Your task to perform on an android device: Is it going to rain today? Image 0: 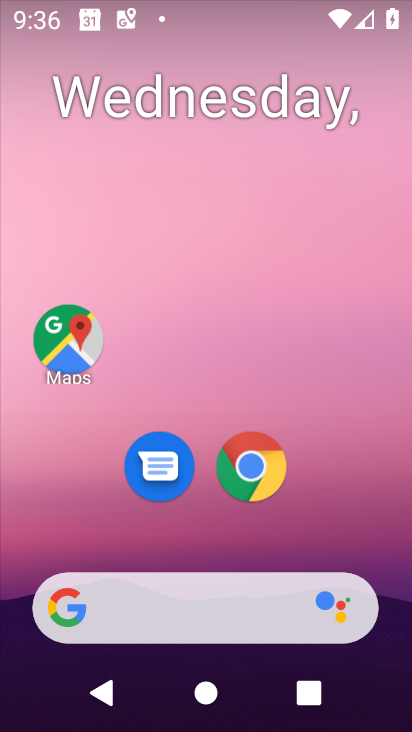
Step 0: drag from (341, 484) to (342, 223)
Your task to perform on an android device: Is it going to rain today? Image 1: 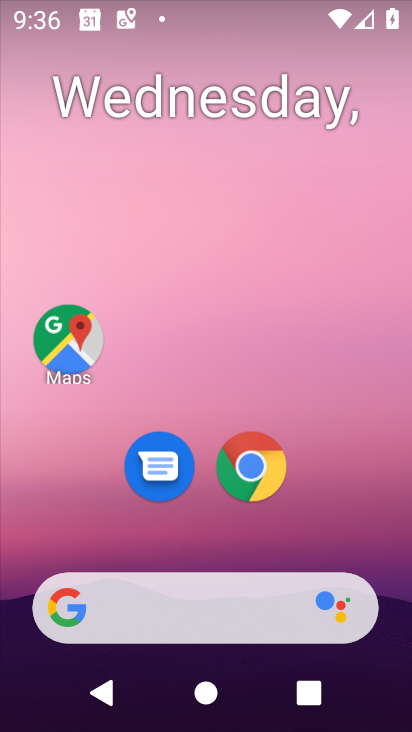
Step 1: drag from (290, 540) to (301, 249)
Your task to perform on an android device: Is it going to rain today? Image 2: 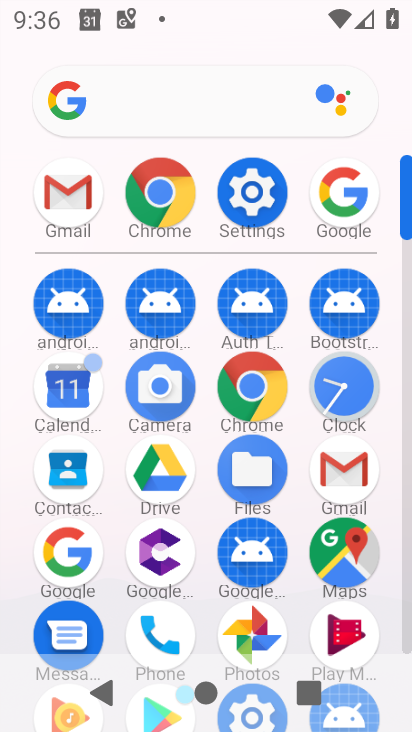
Step 2: click (142, 188)
Your task to perform on an android device: Is it going to rain today? Image 3: 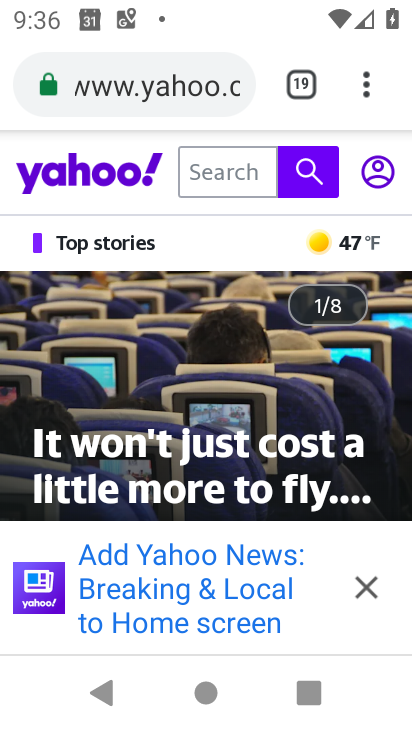
Step 3: click (337, 79)
Your task to perform on an android device: Is it going to rain today? Image 4: 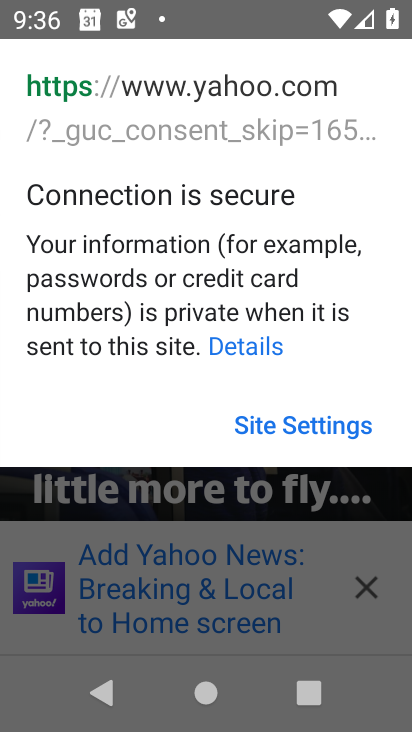
Step 4: press back button
Your task to perform on an android device: Is it going to rain today? Image 5: 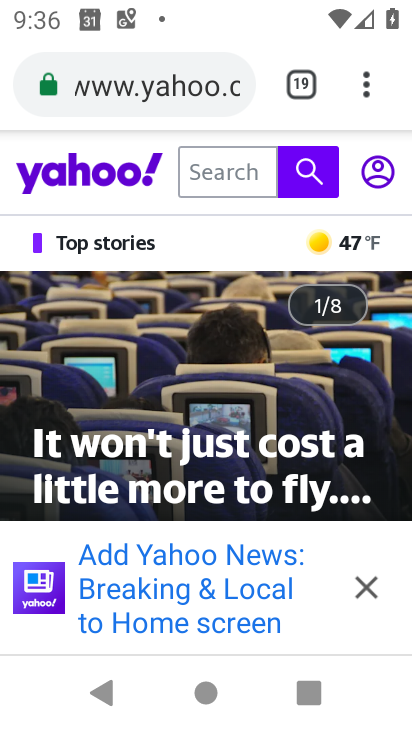
Step 5: click (354, 82)
Your task to perform on an android device: Is it going to rain today? Image 6: 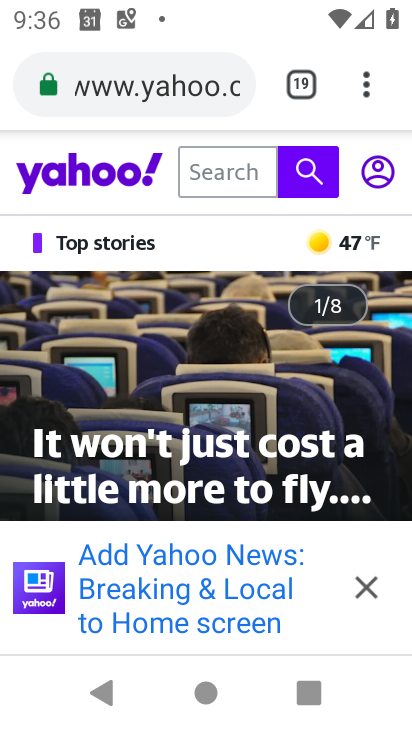
Step 6: click (386, 74)
Your task to perform on an android device: Is it going to rain today? Image 7: 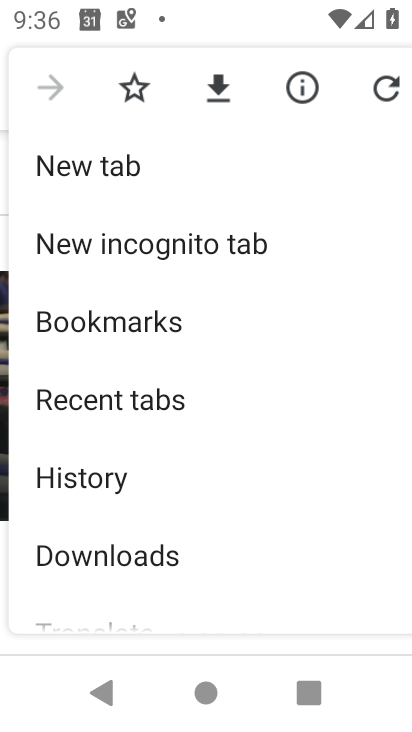
Step 7: click (88, 162)
Your task to perform on an android device: Is it going to rain today? Image 8: 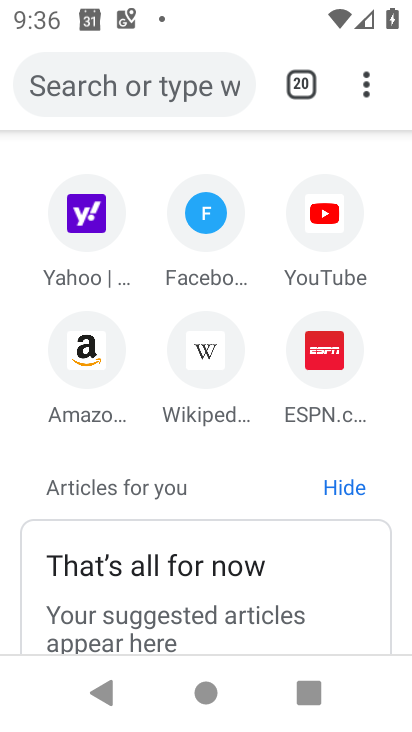
Step 8: click (386, 718)
Your task to perform on an android device: Is it going to rain today? Image 9: 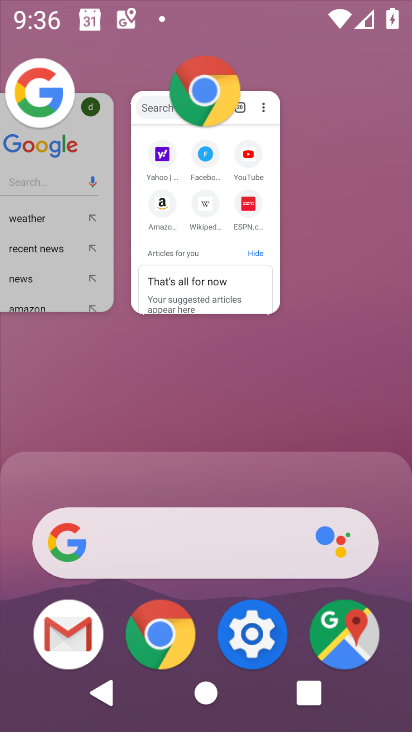
Step 9: click (154, 209)
Your task to perform on an android device: Is it going to rain today? Image 10: 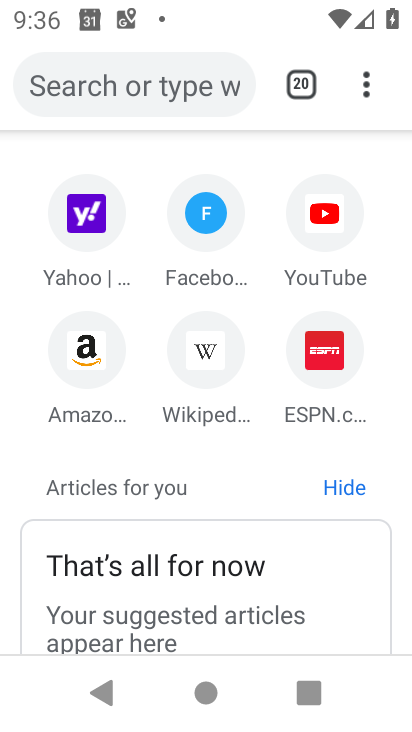
Step 10: click (169, 81)
Your task to perform on an android device: Is it going to rain today? Image 11: 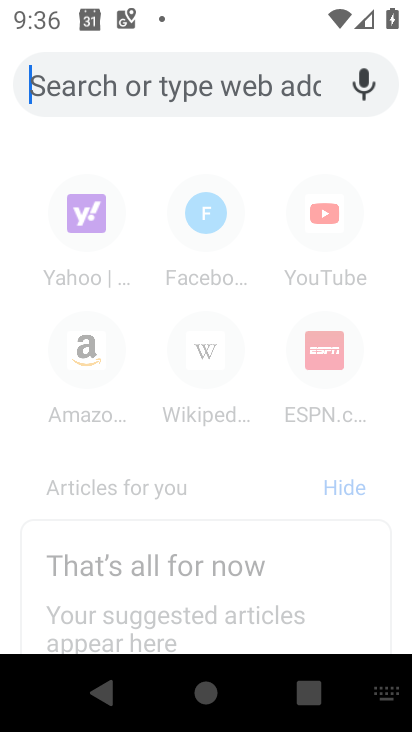
Step 11: type "Is it going to rain today?"
Your task to perform on an android device: Is it going to rain today? Image 12: 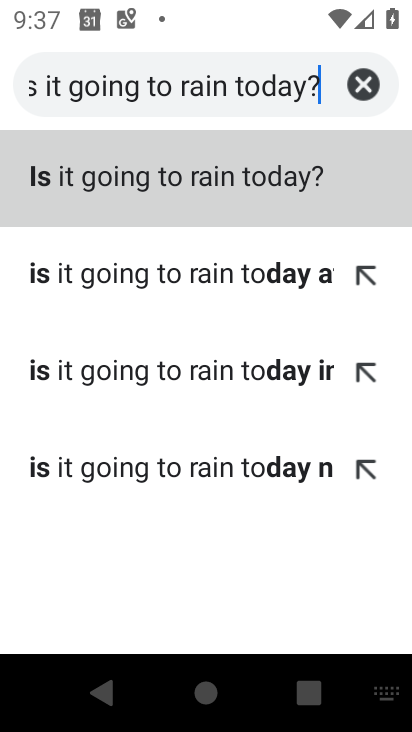
Step 12: click (159, 187)
Your task to perform on an android device: Is it going to rain today? Image 13: 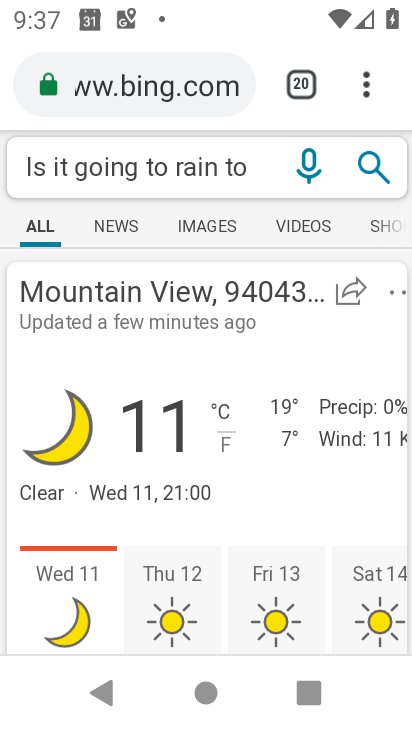
Step 13: task complete